Your task to perform on an android device: What's the weather? Image 0: 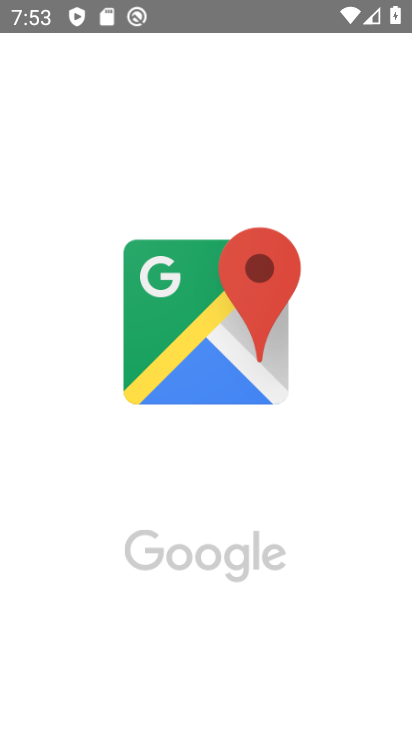
Step 0: press home button
Your task to perform on an android device: What's the weather? Image 1: 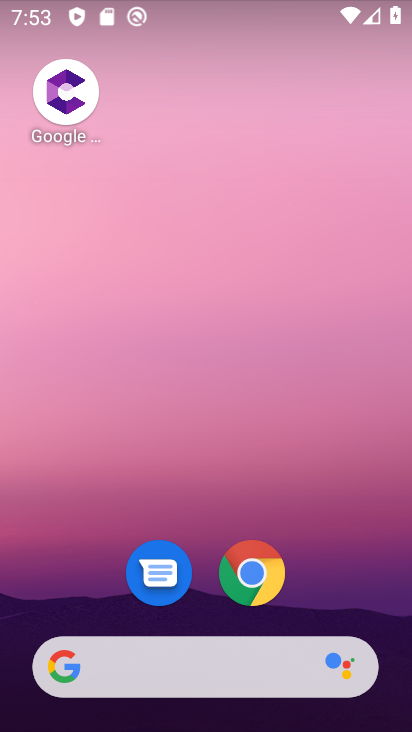
Step 1: drag from (211, 615) to (206, 258)
Your task to perform on an android device: What's the weather? Image 2: 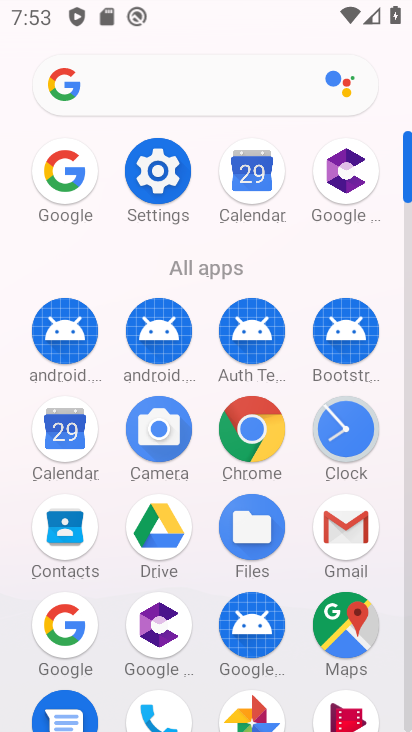
Step 2: click (54, 215)
Your task to perform on an android device: What's the weather? Image 3: 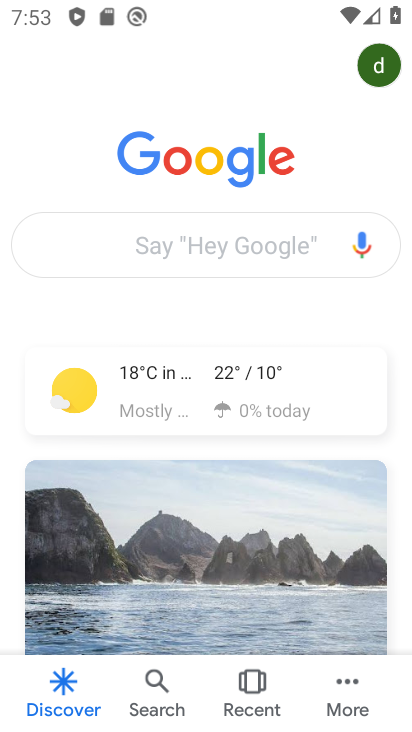
Step 3: click (183, 386)
Your task to perform on an android device: What's the weather? Image 4: 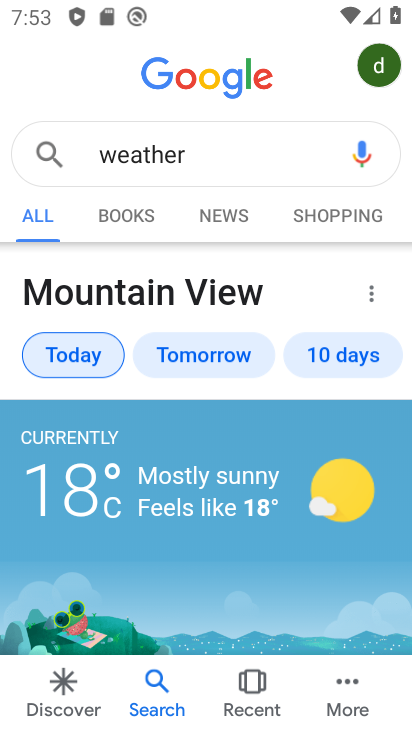
Step 4: task complete